Your task to perform on an android device: Add "energizer triple a" to the cart on walmart.com, then select checkout. Image 0: 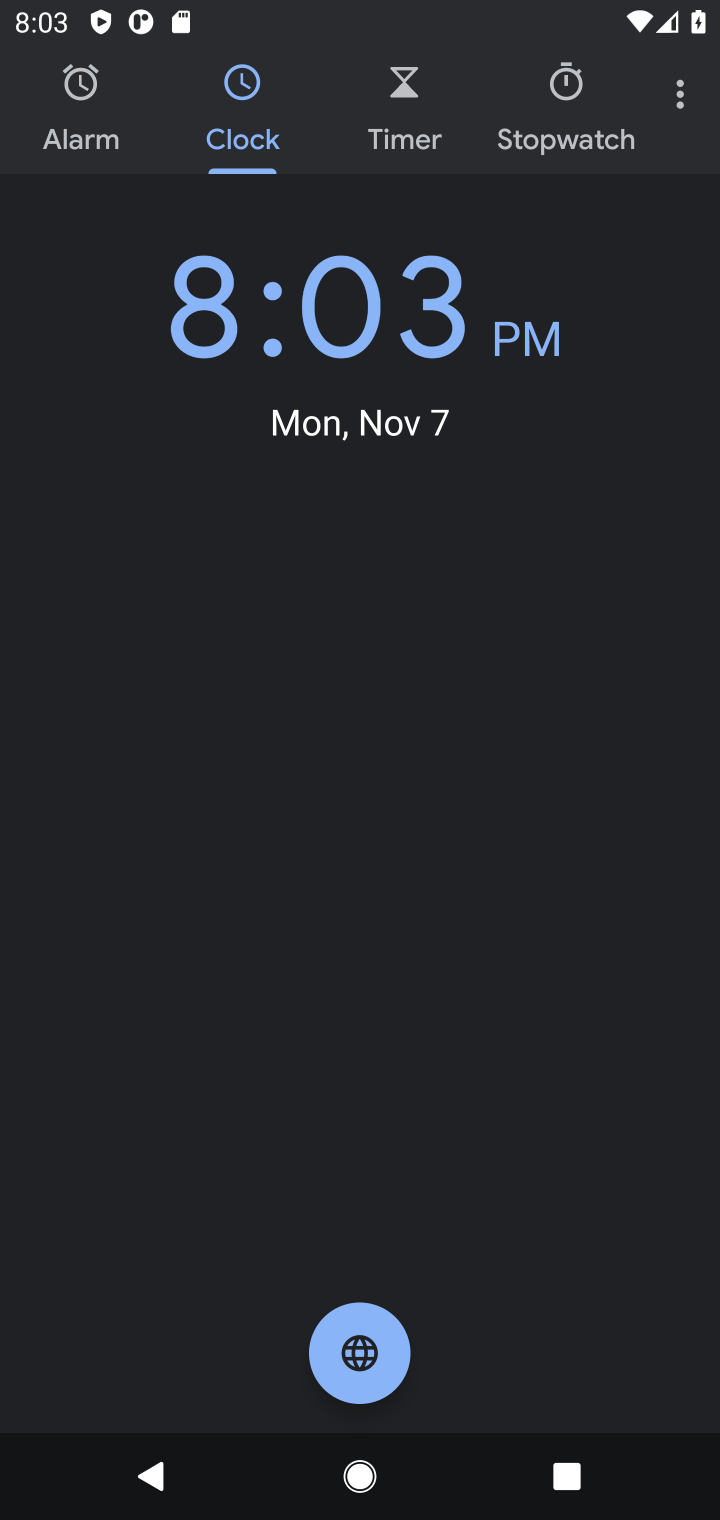
Step 0: press home button
Your task to perform on an android device: Add "energizer triple a" to the cart on walmart.com, then select checkout. Image 1: 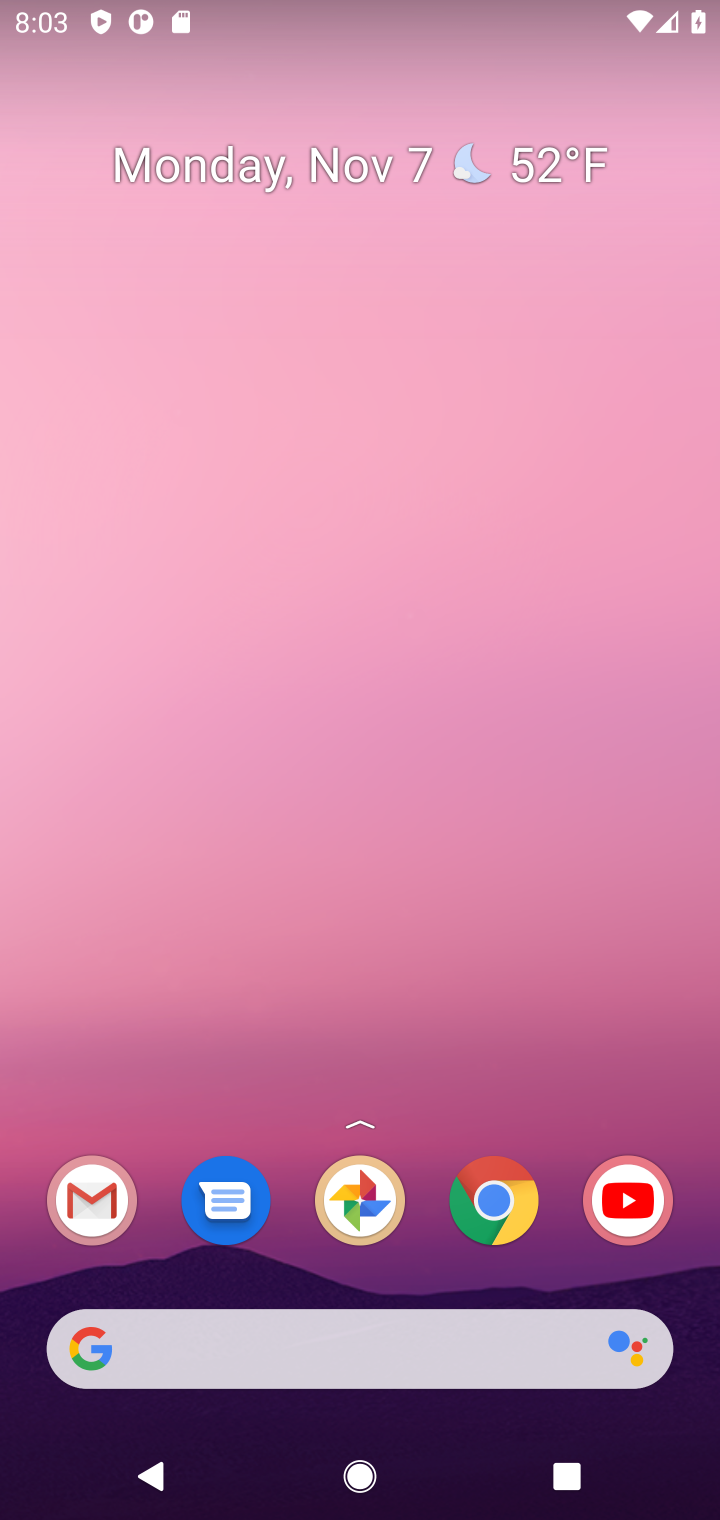
Step 1: click (510, 1217)
Your task to perform on an android device: Add "energizer triple a" to the cart on walmart.com, then select checkout. Image 2: 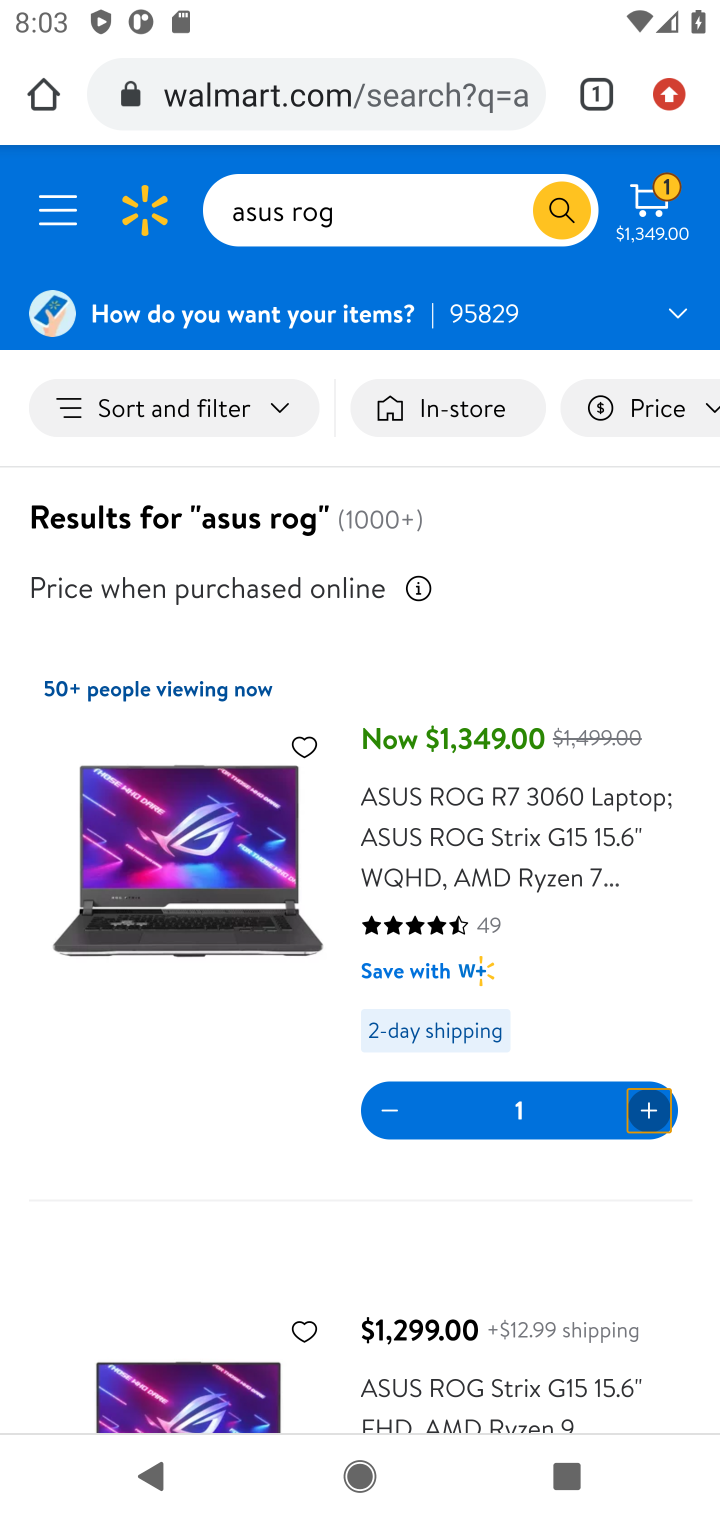
Step 2: click (360, 222)
Your task to perform on an android device: Add "energizer triple a" to the cart on walmart.com, then select checkout. Image 3: 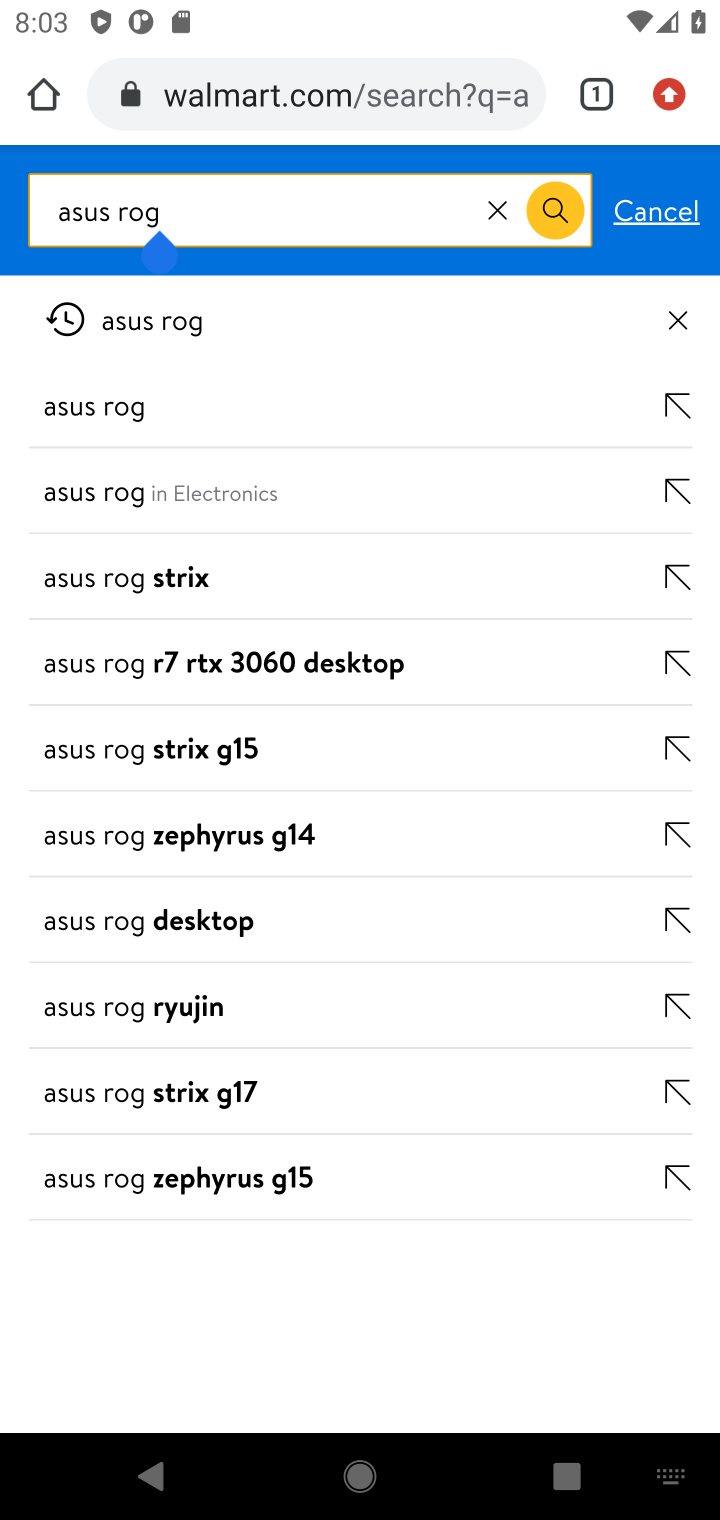
Step 3: click (483, 217)
Your task to perform on an android device: Add "energizer triple a" to the cart on walmart.com, then select checkout. Image 4: 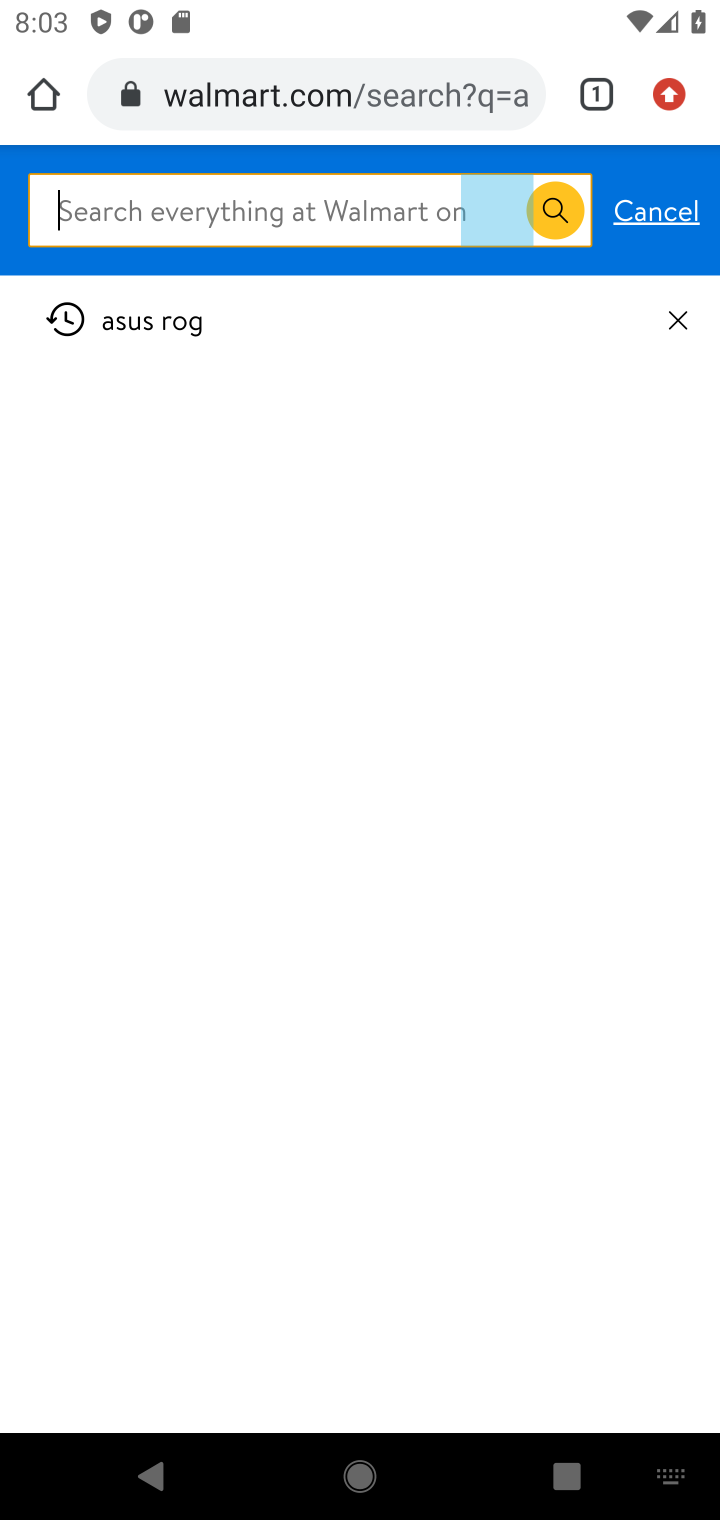
Step 4: click (490, 217)
Your task to perform on an android device: Add "energizer triple a" to the cart on walmart.com, then select checkout. Image 5: 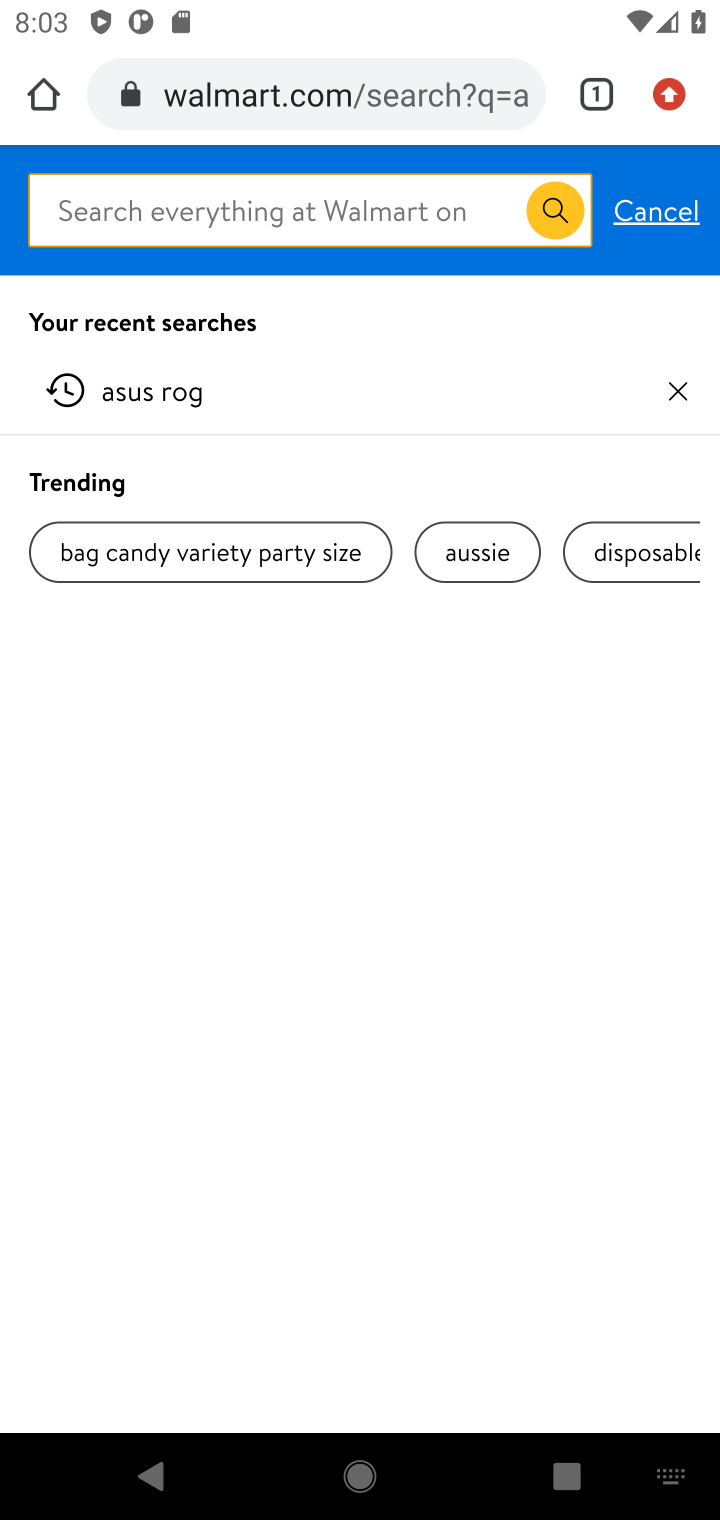
Step 5: type "energizer triple a"
Your task to perform on an android device: Add "energizer triple a" to the cart on walmart.com, then select checkout. Image 6: 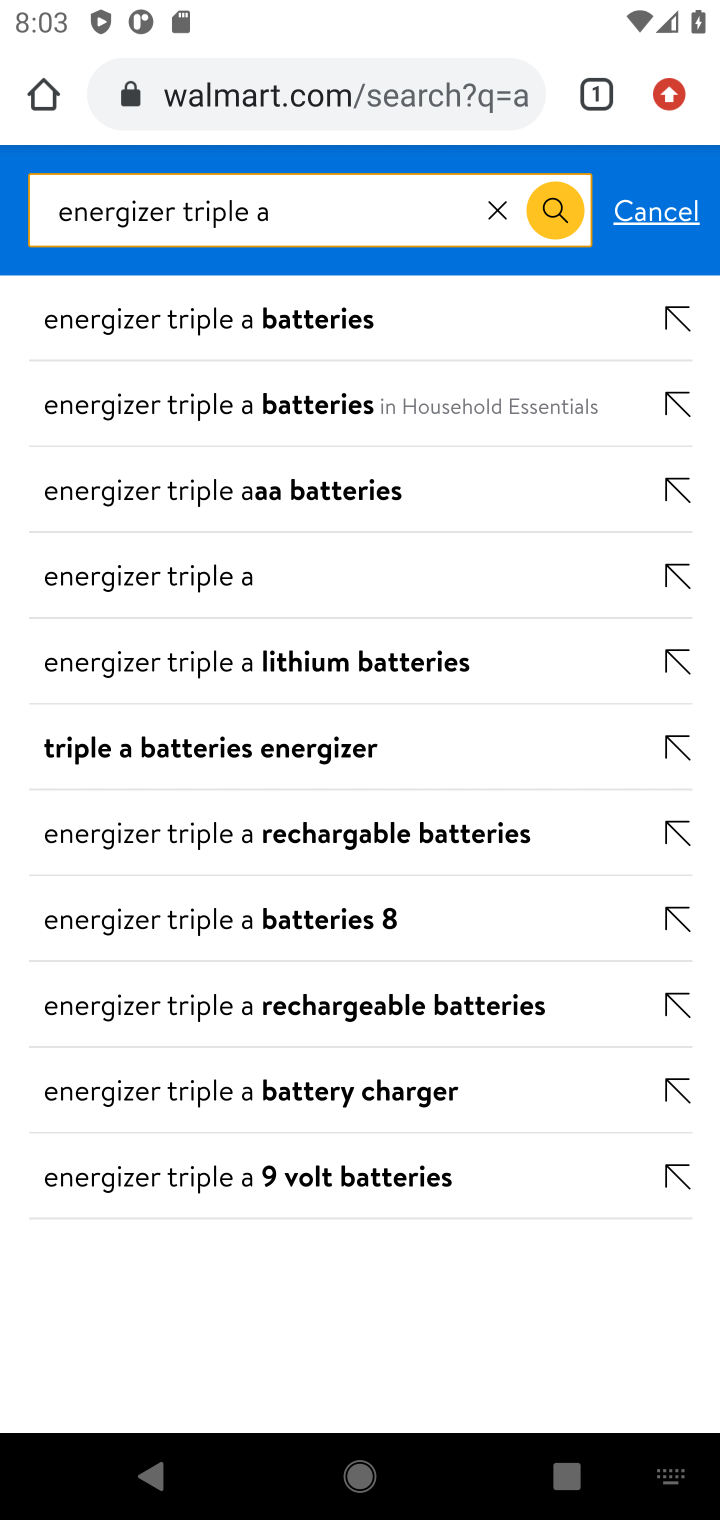
Step 6: press enter
Your task to perform on an android device: Add "energizer triple a" to the cart on walmart.com, then select checkout. Image 7: 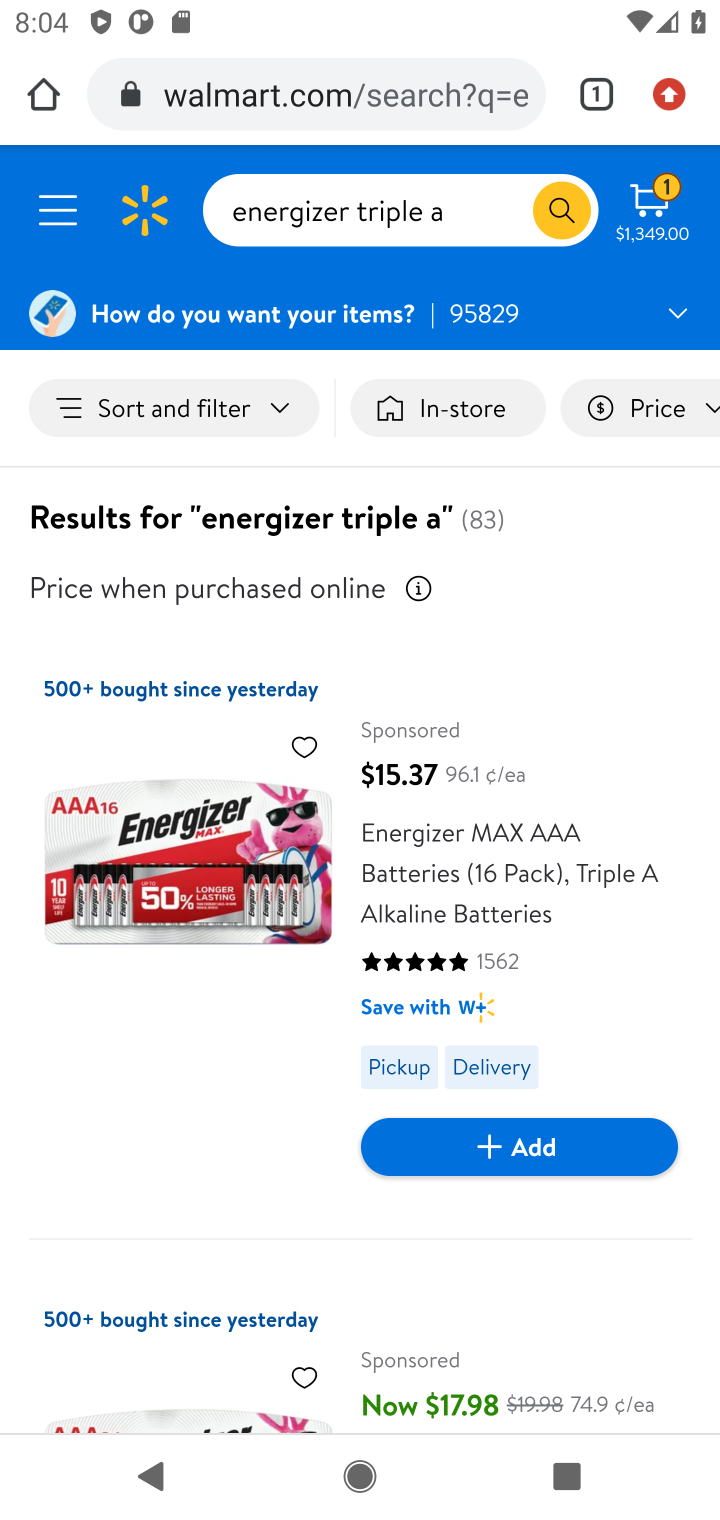
Step 7: click (499, 1151)
Your task to perform on an android device: Add "energizer triple a" to the cart on walmart.com, then select checkout. Image 8: 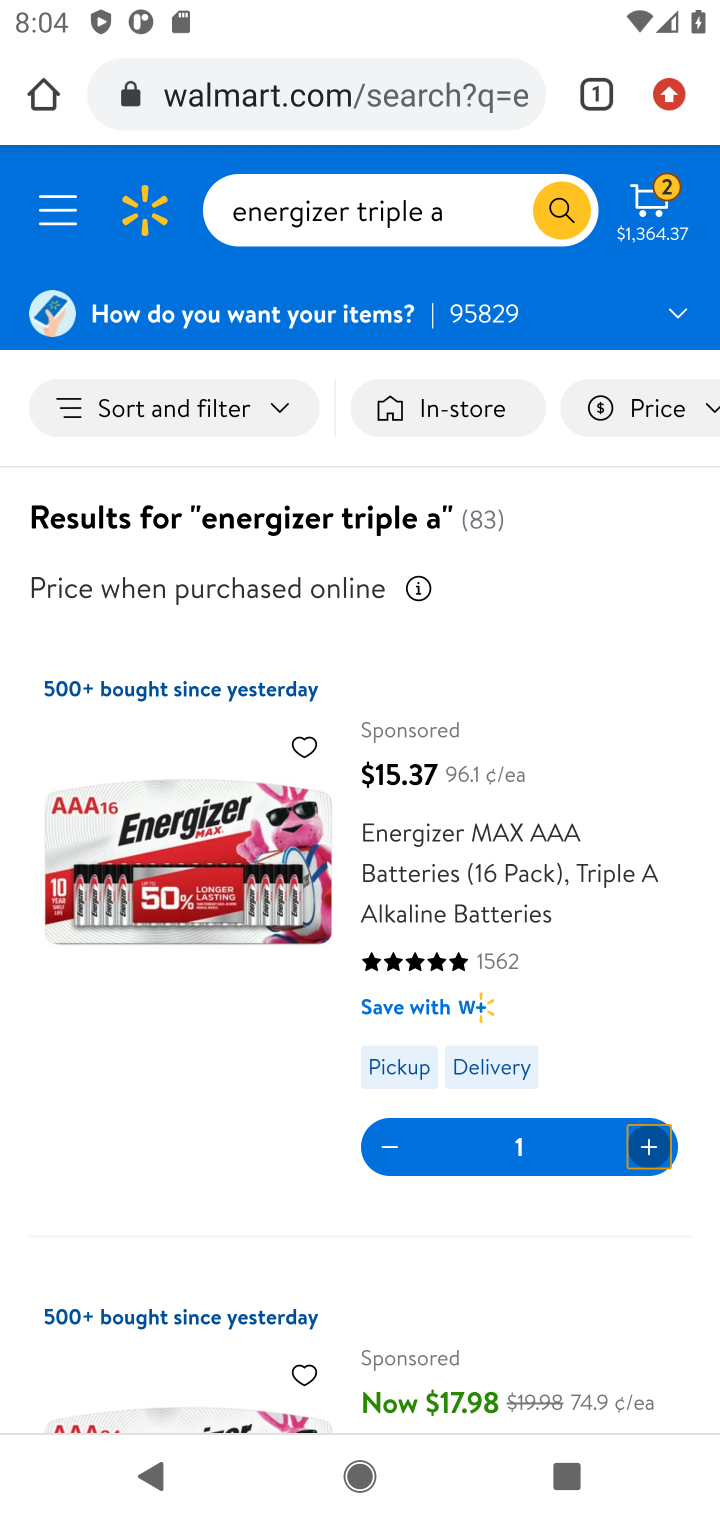
Step 8: click (641, 207)
Your task to perform on an android device: Add "energizer triple a" to the cart on walmart.com, then select checkout. Image 9: 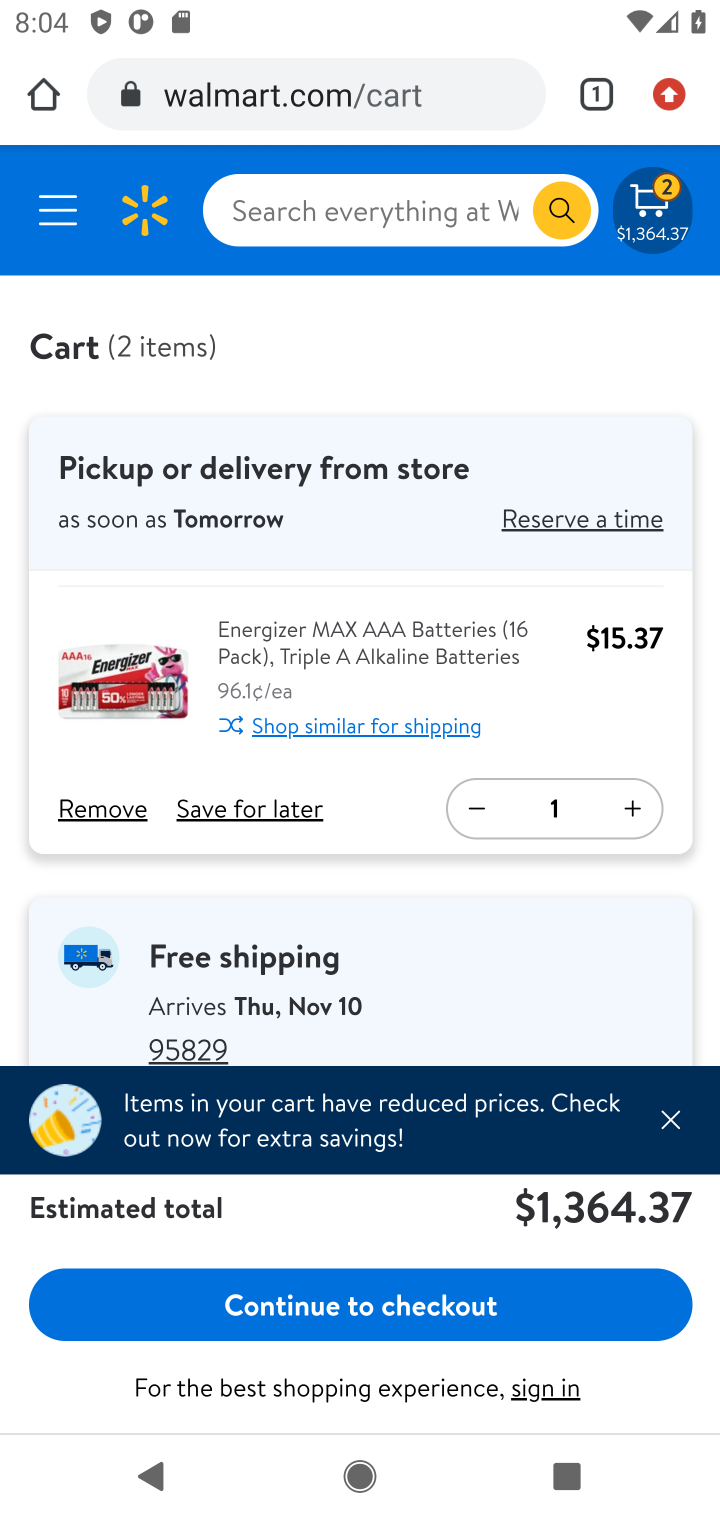
Step 9: click (356, 1313)
Your task to perform on an android device: Add "energizer triple a" to the cart on walmart.com, then select checkout. Image 10: 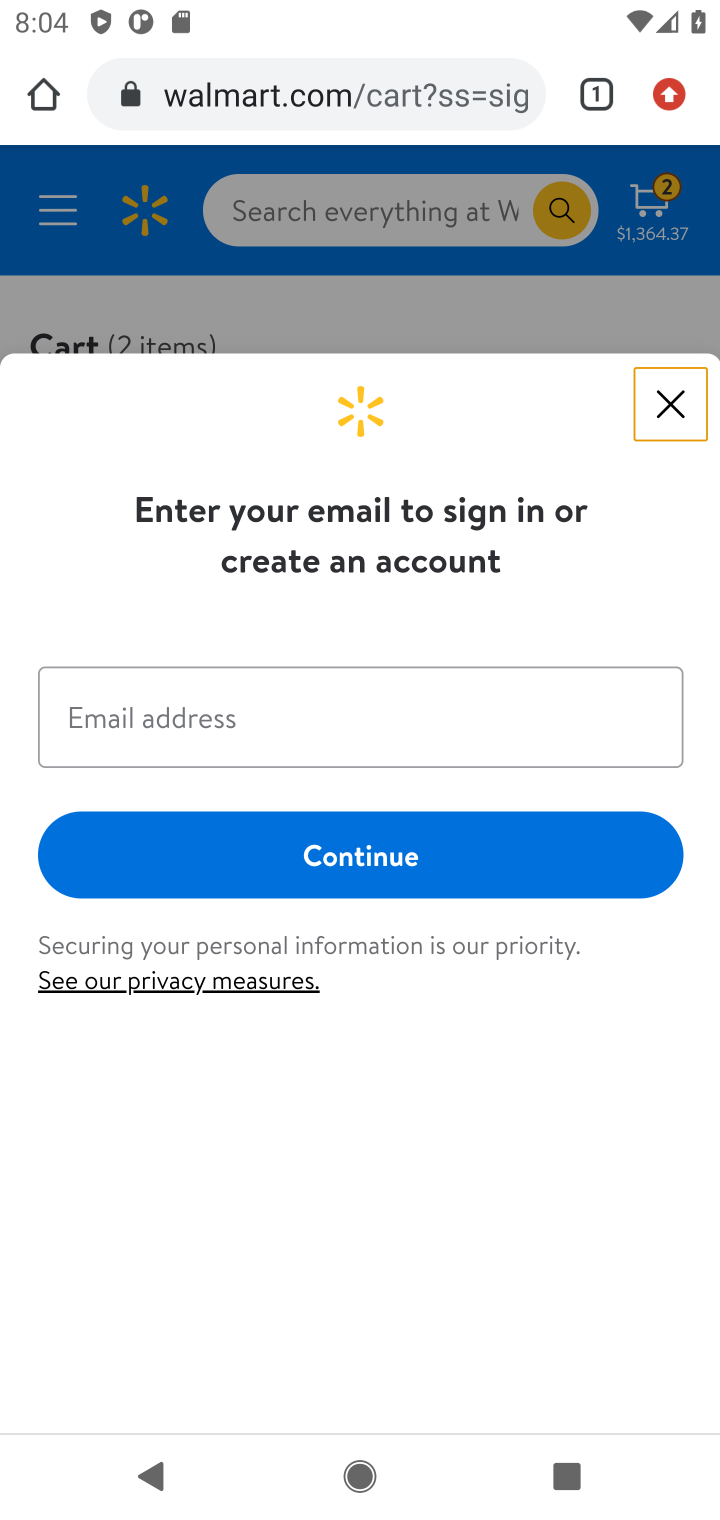
Step 10: task complete